Your task to perform on an android device: What's the weather today? Image 0: 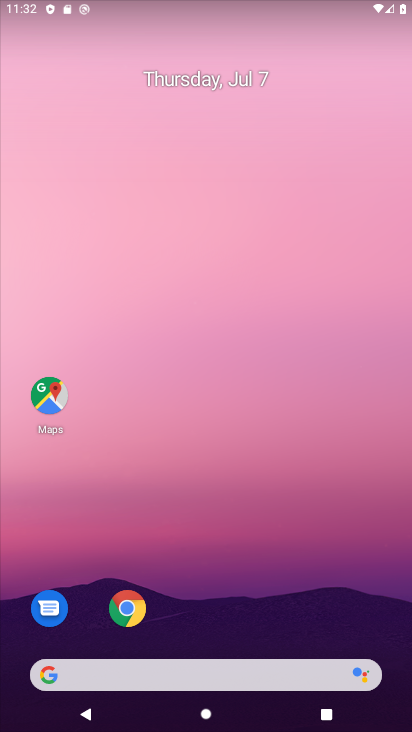
Step 0: drag from (279, 605) to (227, 234)
Your task to perform on an android device: What's the weather today? Image 1: 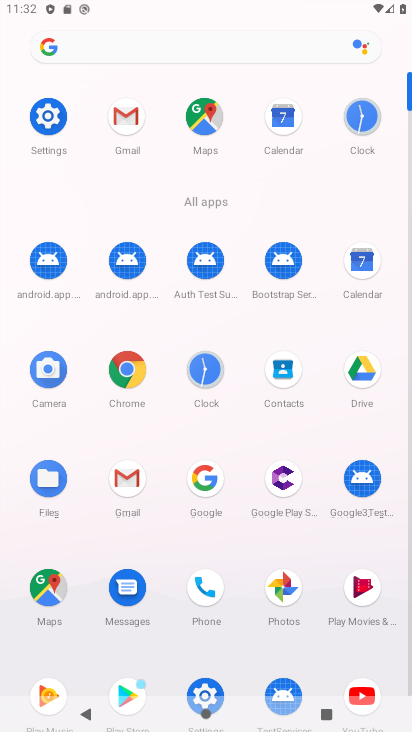
Step 1: click (119, 45)
Your task to perform on an android device: What's the weather today? Image 2: 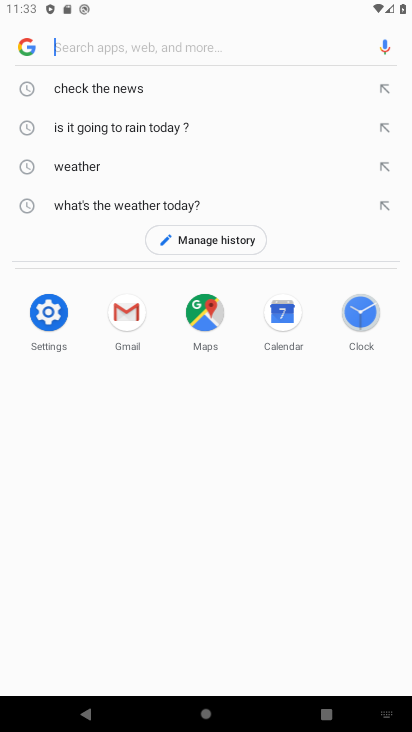
Step 2: click (139, 90)
Your task to perform on an android device: What's the weather today? Image 3: 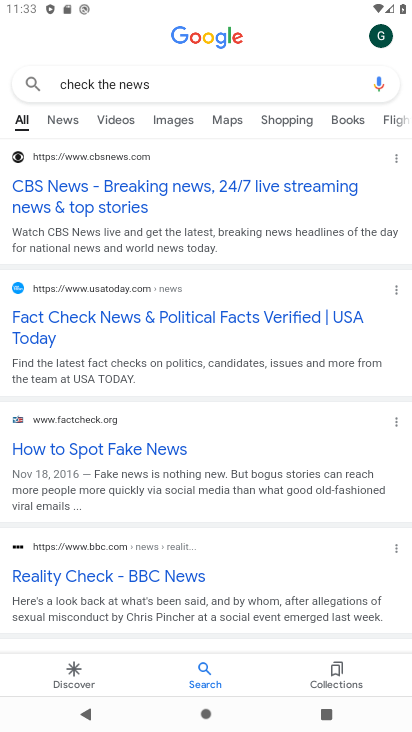
Step 3: click (90, 712)
Your task to perform on an android device: What's the weather today? Image 4: 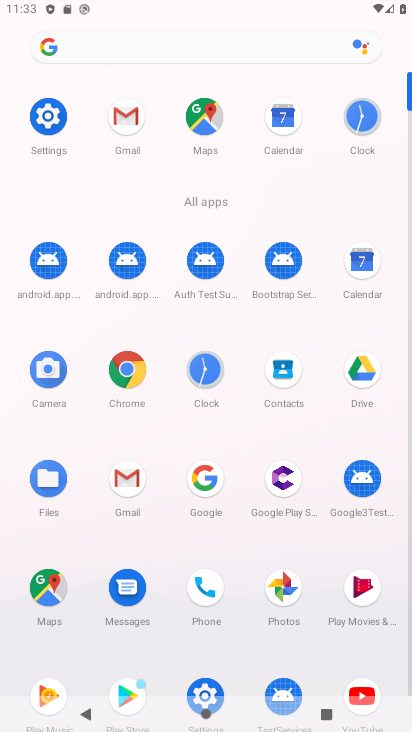
Step 4: click (133, 56)
Your task to perform on an android device: What's the weather today? Image 5: 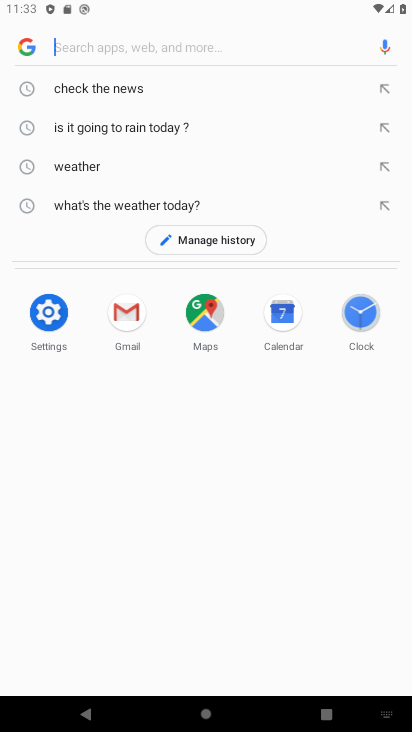
Step 5: click (162, 156)
Your task to perform on an android device: What's the weather today? Image 6: 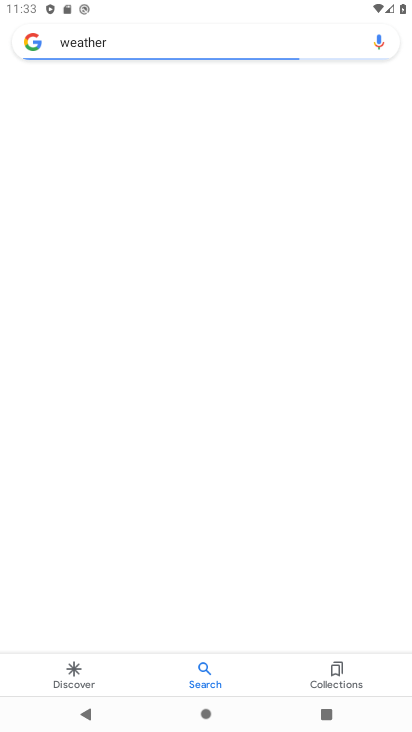
Step 6: task complete